Your task to perform on an android device: Check the weather Image 0: 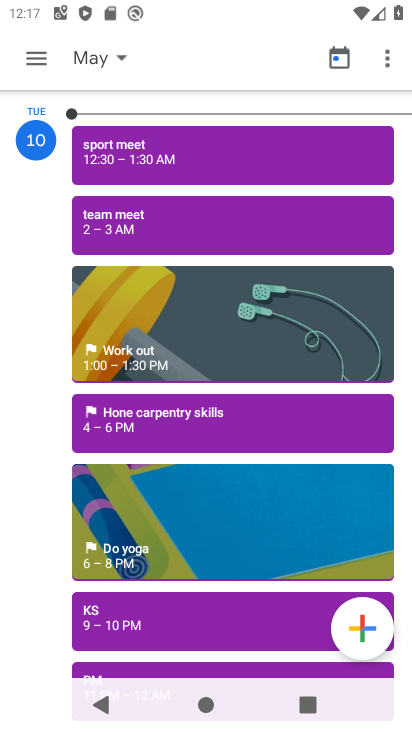
Step 0: drag from (358, 675) to (111, 87)
Your task to perform on an android device: Check the weather Image 1: 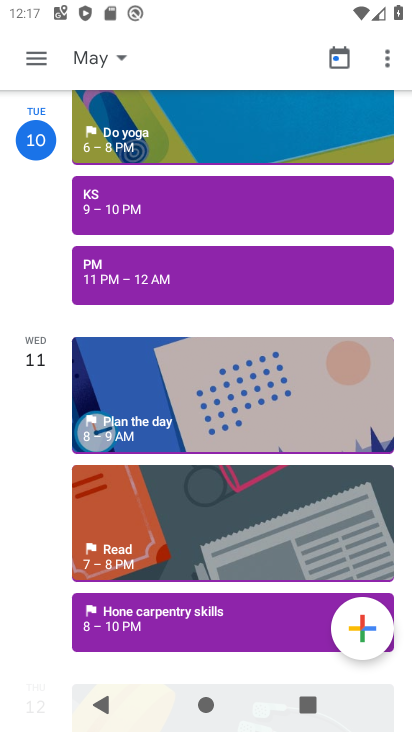
Step 1: press back button
Your task to perform on an android device: Check the weather Image 2: 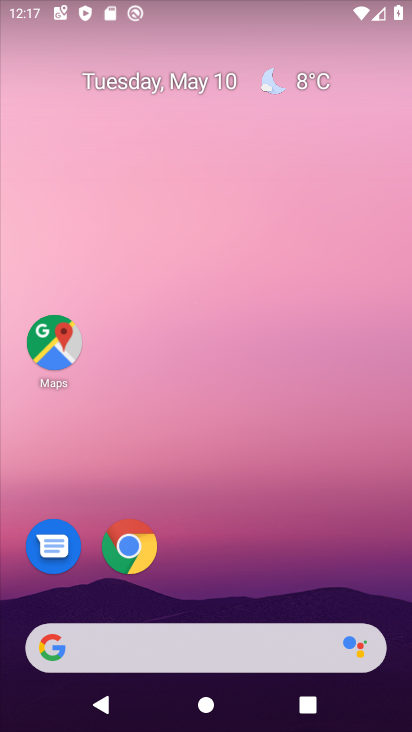
Step 2: drag from (246, 579) to (95, 39)
Your task to perform on an android device: Check the weather Image 3: 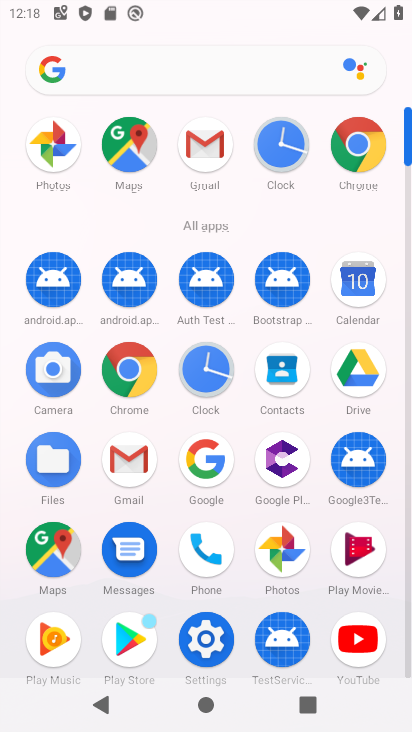
Step 3: press back button
Your task to perform on an android device: Check the weather Image 4: 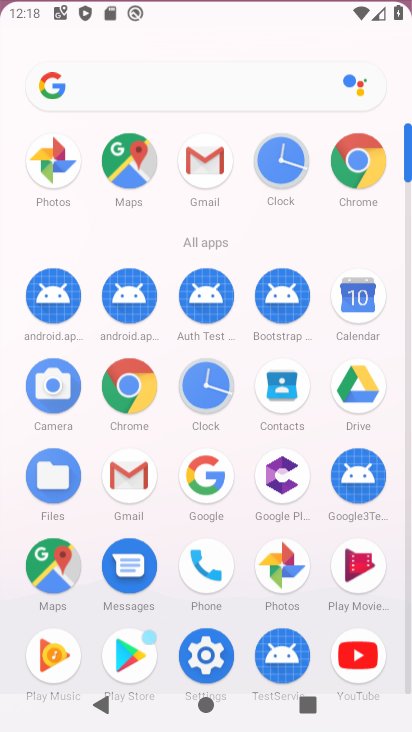
Step 4: press back button
Your task to perform on an android device: Check the weather Image 5: 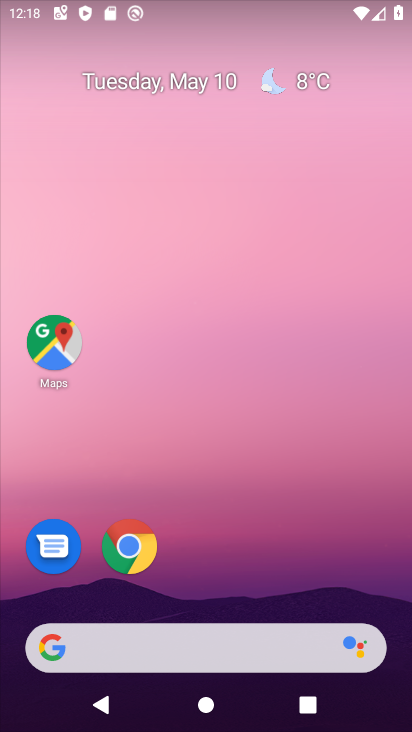
Step 5: press back button
Your task to perform on an android device: Check the weather Image 6: 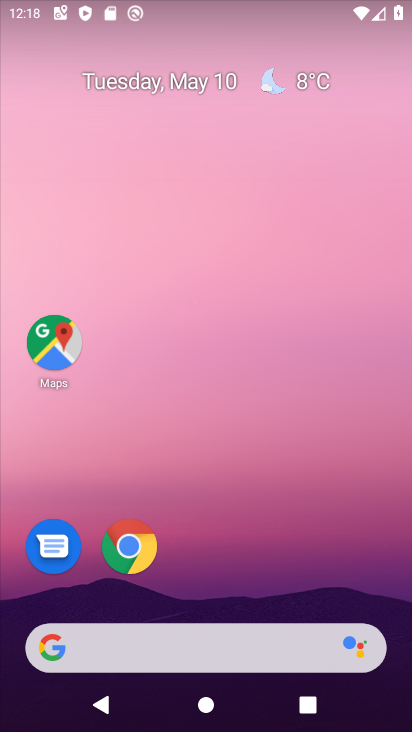
Step 6: press back button
Your task to perform on an android device: Check the weather Image 7: 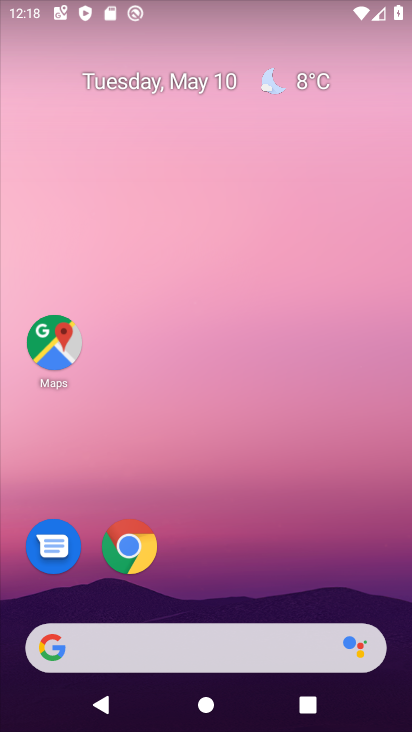
Step 7: click (303, 68)
Your task to perform on an android device: Check the weather Image 8: 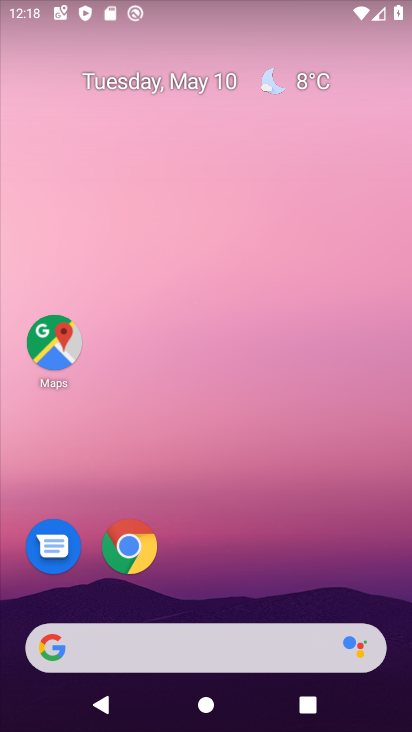
Step 8: click (282, 83)
Your task to perform on an android device: Check the weather Image 9: 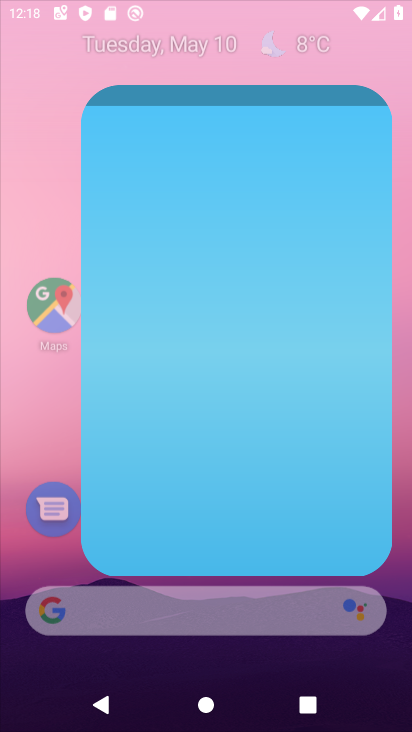
Step 9: click (281, 84)
Your task to perform on an android device: Check the weather Image 10: 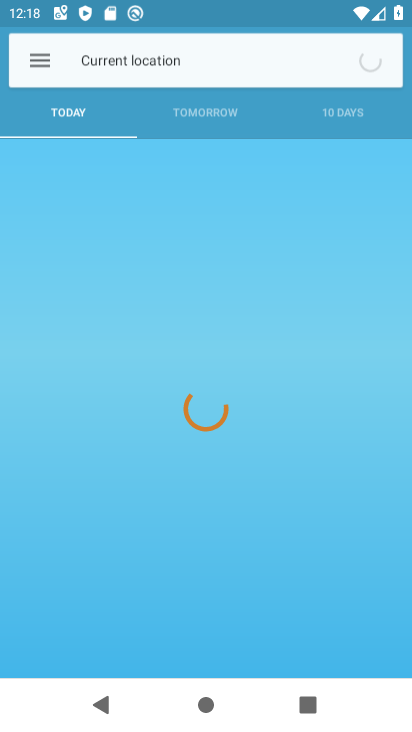
Step 10: click (281, 84)
Your task to perform on an android device: Check the weather Image 11: 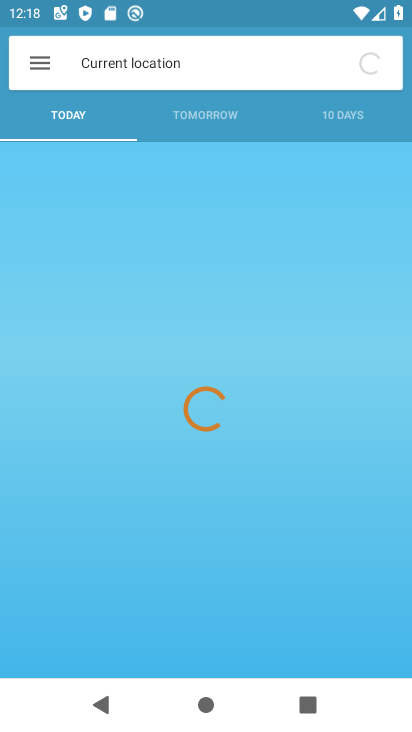
Step 11: click (281, 84)
Your task to perform on an android device: Check the weather Image 12: 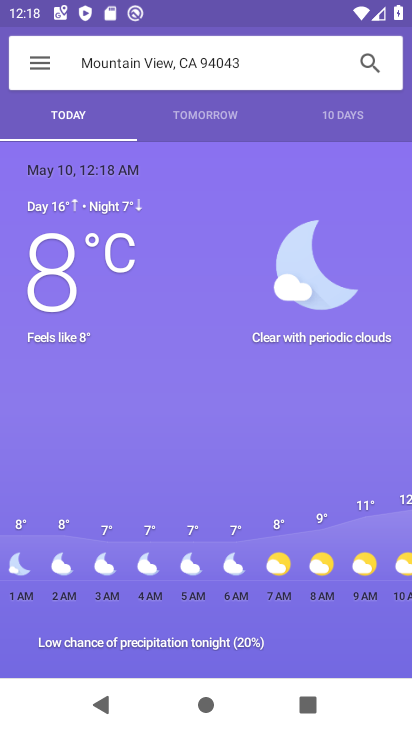
Step 12: drag from (137, 481) to (129, 129)
Your task to perform on an android device: Check the weather Image 13: 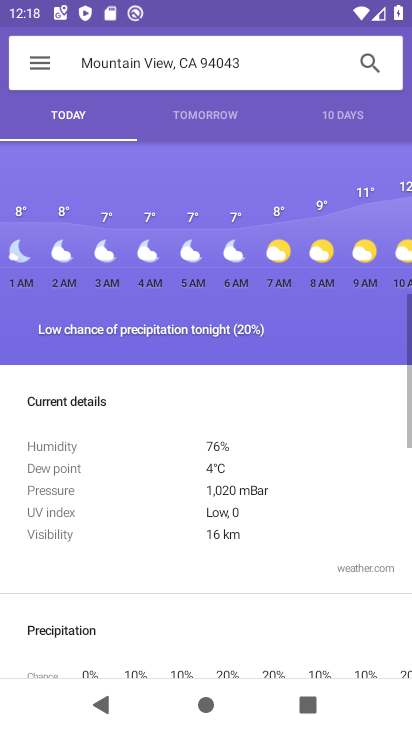
Step 13: drag from (171, 452) to (117, 9)
Your task to perform on an android device: Check the weather Image 14: 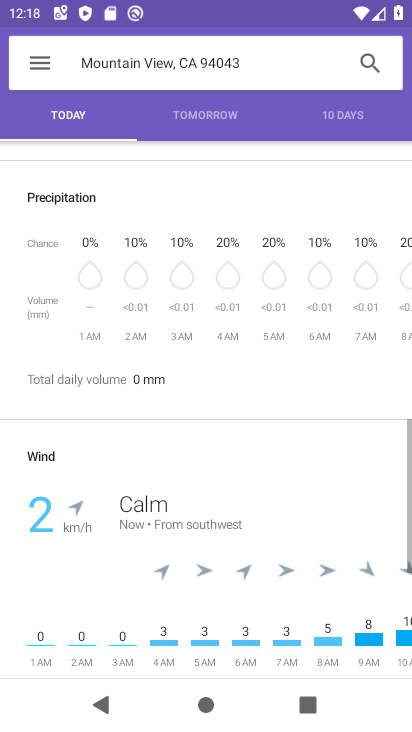
Step 14: drag from (161, 380) to (128, 11)
Your task to perform on an android device: Check the weather Image 15: 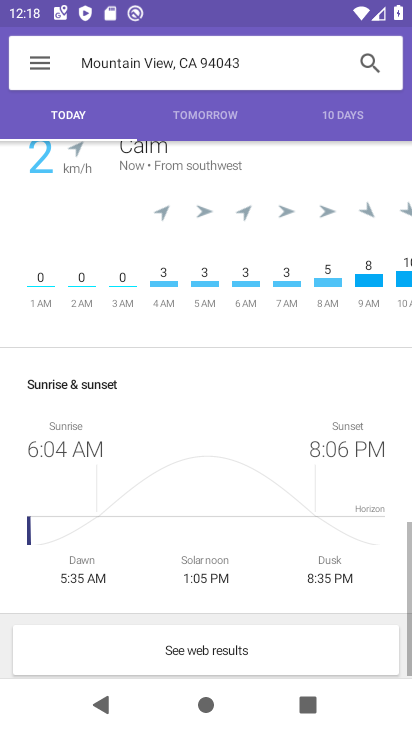
Step 15: drag from (209, 408) to (124, 43)
Your task to perform on an android device: Check the weather Image 16: 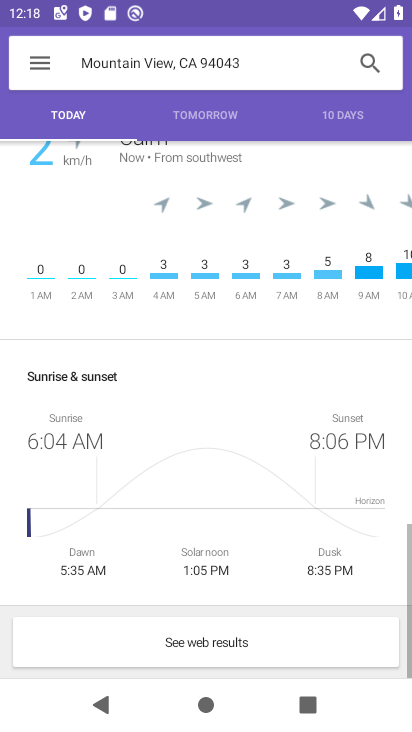
Step 16: drag from (163, 450) to (128, 25)
Your task to perform on an android device: Check the weather Image 17: 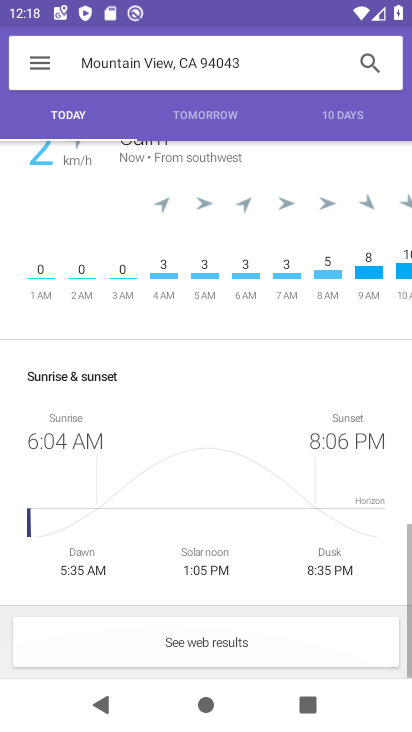
Step 17: drag from (185, 463) to (180, 188)
Your task to perform on an android device: Check the weather Image 18: 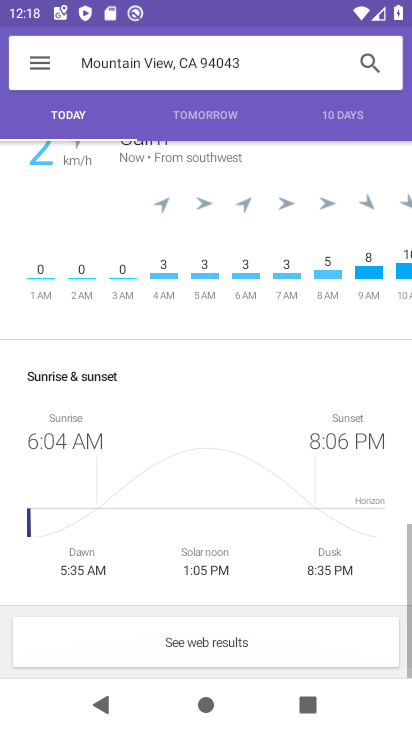
Step 18: drag from (271, 441) to (233, 25)
Your task to perform on an android device: Check the weather Image 19: 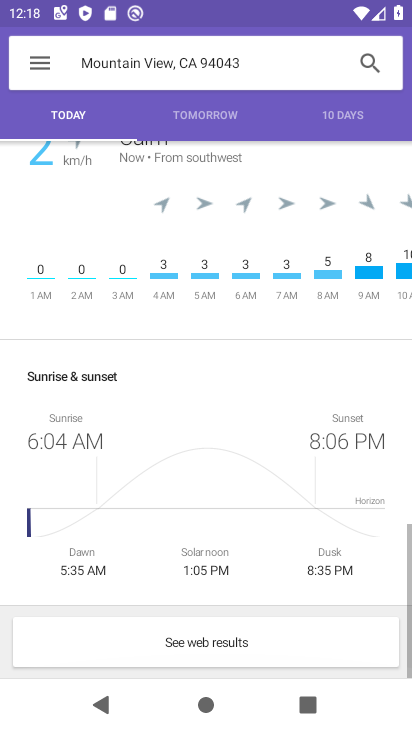
Step 19: drag from (190, 459) to (184, 201)
Your task to perform on an android device: Check the weather Image 20: 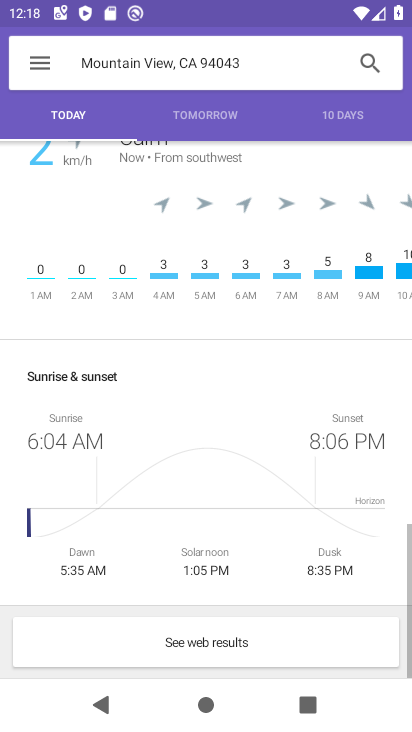
Step 20: drag from (141, 230) to (187, 489)
Your task to perform on an android device: Check the weather Image 21: 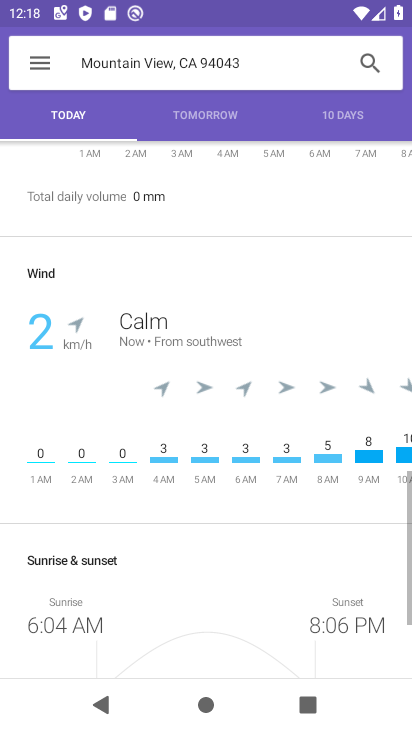
Step 21: drag from (201, 276) to (248, 566)
Your task to perform on an android device: Check the weather Image 22: 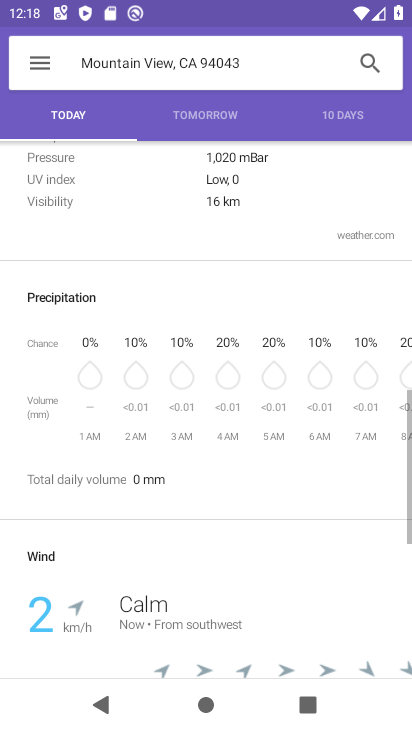
Step 22: drag from (235, 298) to (260, 516)
Your task to perform on an android device: Check the weather Image 23: 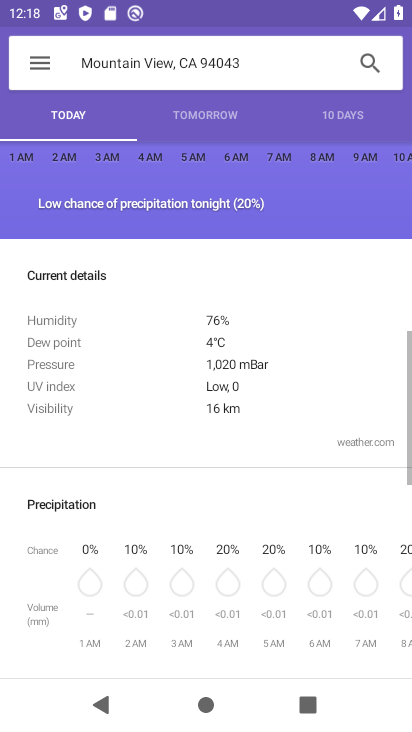
Step 23: drag from (224, 352) to (238, 547)
Your task to perform on an android device: Check the weather Image 24: 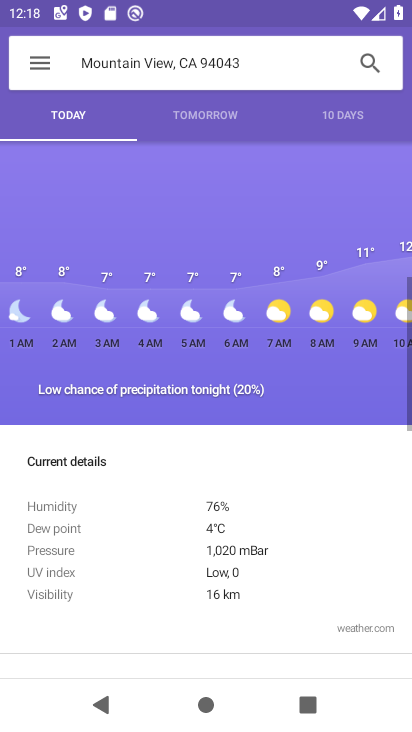
Step 24: drag from (193, 270) to (216, 565)
Your task to perform on an android device: Check the weather Image 25: 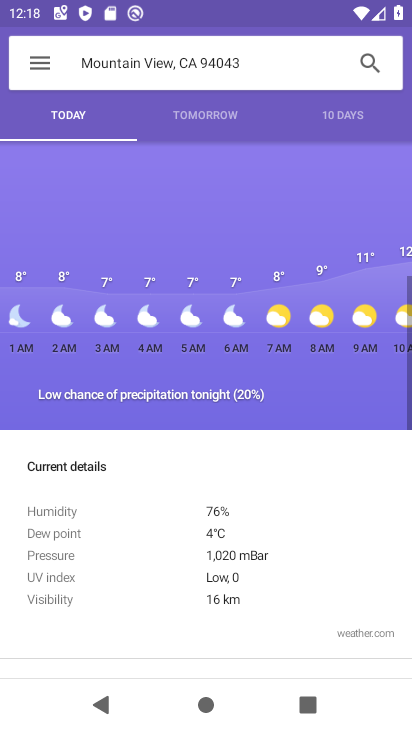
Step 25: drag from (173, 537) to (185, 595)
Your task to perform on an android device: Check the weather Image 26: 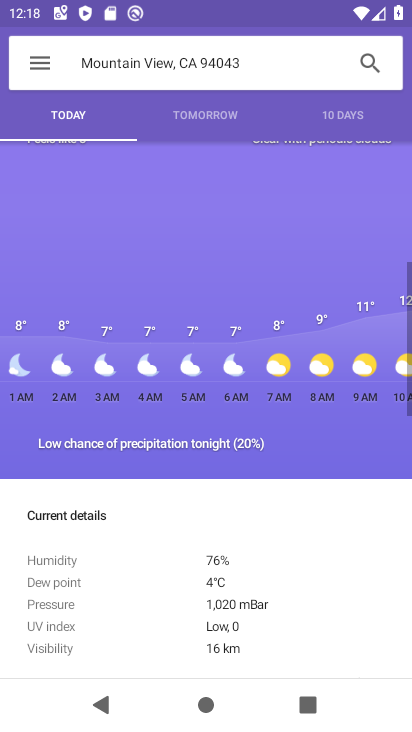
Step 26: drag from (215, 586) to (240, 657)
Your task to perform on an android device: Check the weather Image 27: 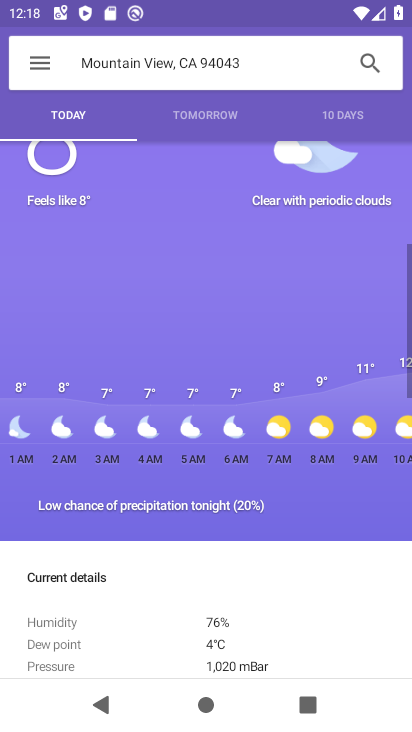
Step 27: drag from (213, 495) to (219, 721)
Your task to perform on an android device: Check the weather Image 28: 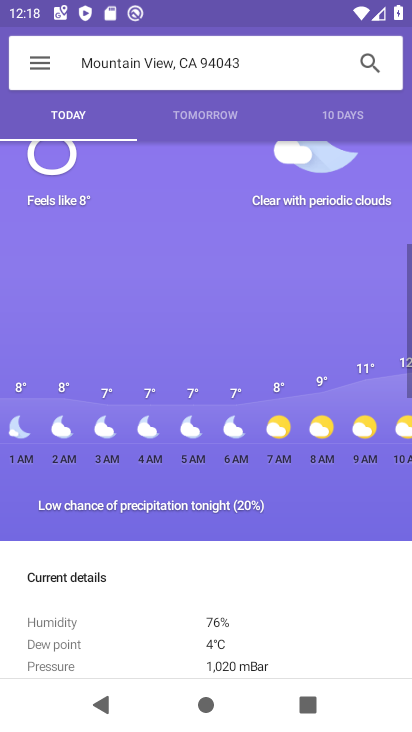
Step 28: drag from (141, 502) to (170, 728)
Your task to perform on an android device: Check the weather Image 29: 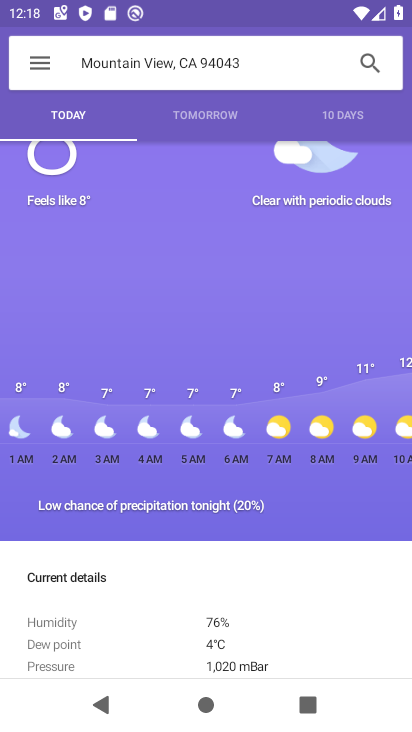
Step 29: drag from (124, 479) to (153, 646)
Your task to perform on an android device: Check the weather Image 30: 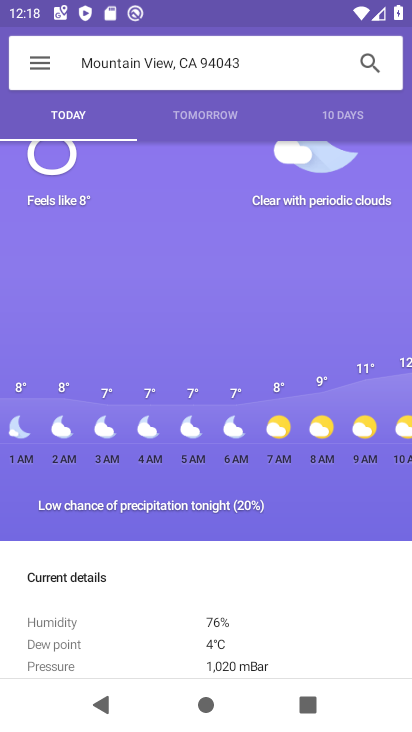
Step 30: drag from (143, 393) to (178, 546)
Your task to perform on an android device: Check the weather Image 31: 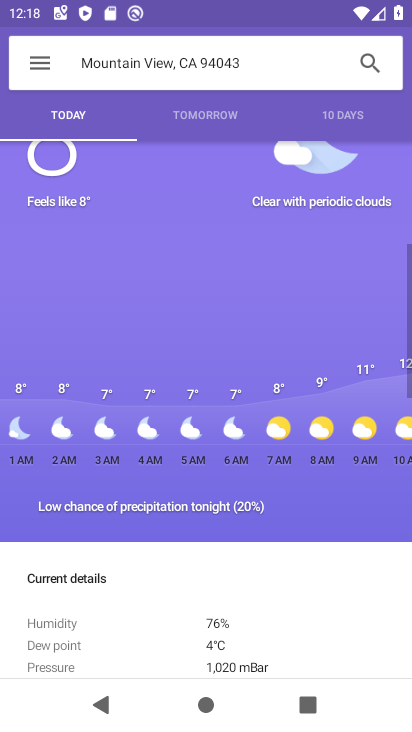
Step 31: drag from (284, 541) to (226, 144)
Your task to perform on an android device: Check the weather Image 32: 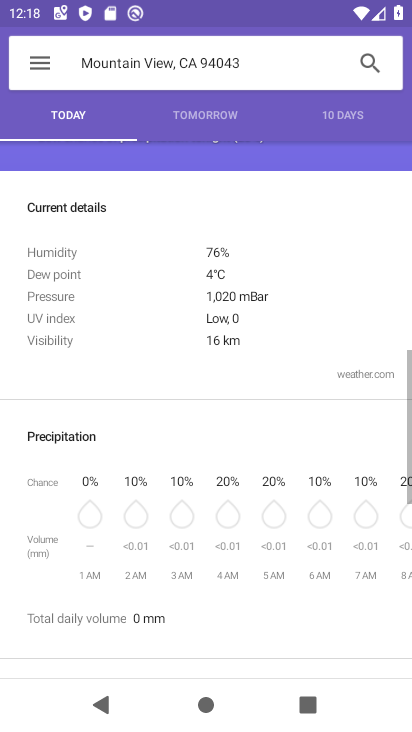
Step 32: drag from (234, 361) to (203, 185)
Your task to perform on an android device: Check the weather Image 33: 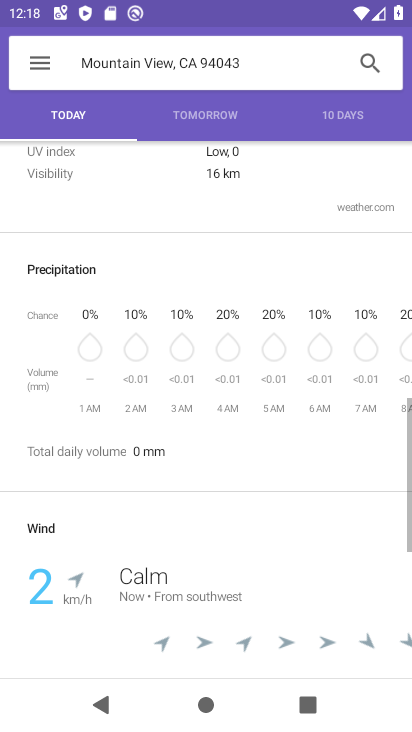
Step 33: drag from (186, 451) to (138, 147)
Your task to perform on an android device: Check the weather Image 34: 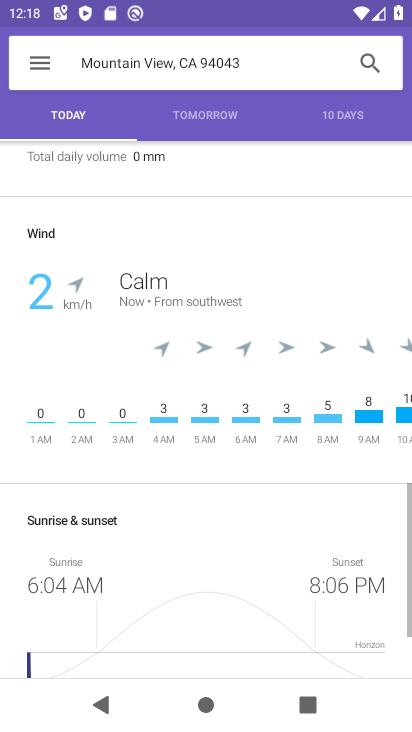
Step 34: drag from (149, 421) to (93, 143)
Your task to perform on an android device: Check the weather Image 35: 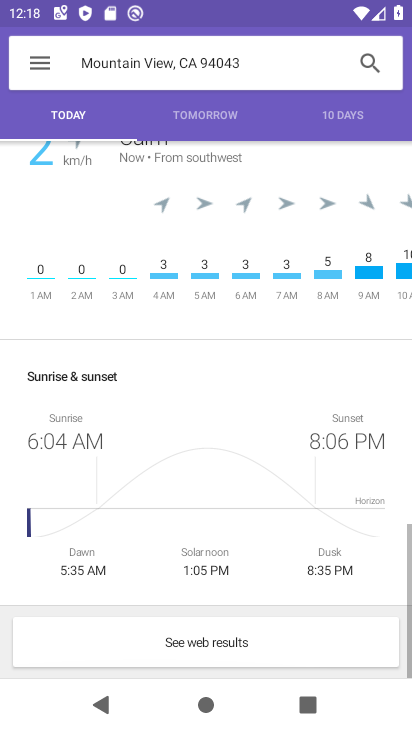
Step 35: drag from (185, 486) to (91, 101)
Your task to perform on an android device: Check the weather Image 36: 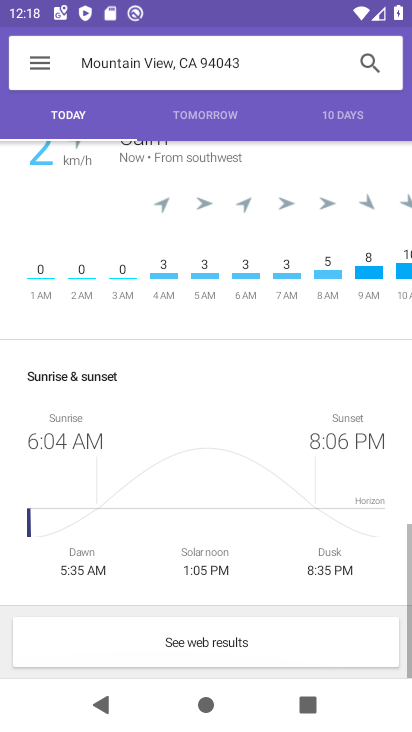
Step 36: drag from (128, 410) to (84, 166)
Your task to perform on an android device: Check the weather Image 37: 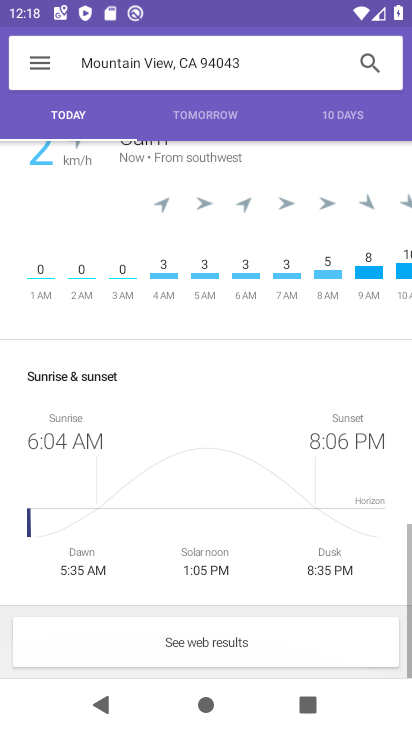
Step 37: drag from (146, 480) to (166, 51)
Your task to perform on an android device: Check the weather Image 38: 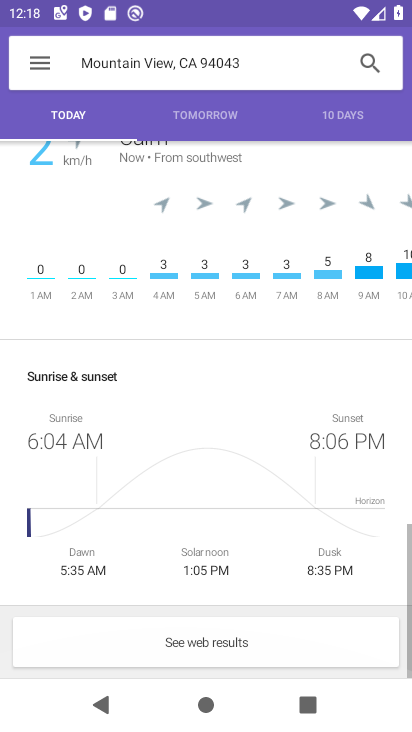
Step 38: drag from (162, 462) to (140, 212)
Your task to perform on an android device: Check the weather Image 39: 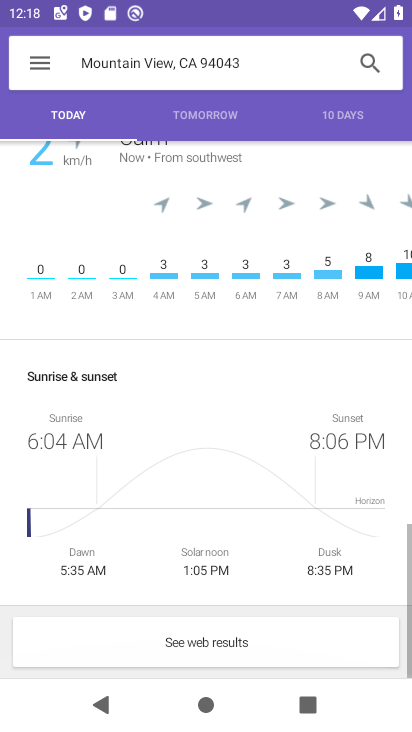
Step 39: drag from (130, 468) to (123, 176)
Your task to perform on an android device: Check the weather Image 40: 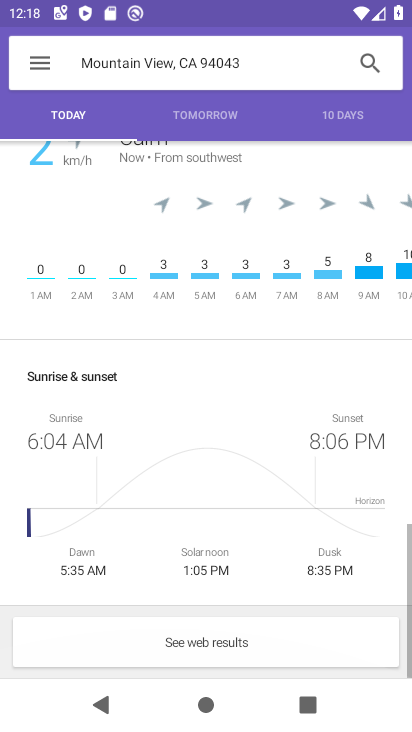
Step 40: drag from (177, 413) to (142, 47)
Your task to perform on an android device: Check the weather Image 41: 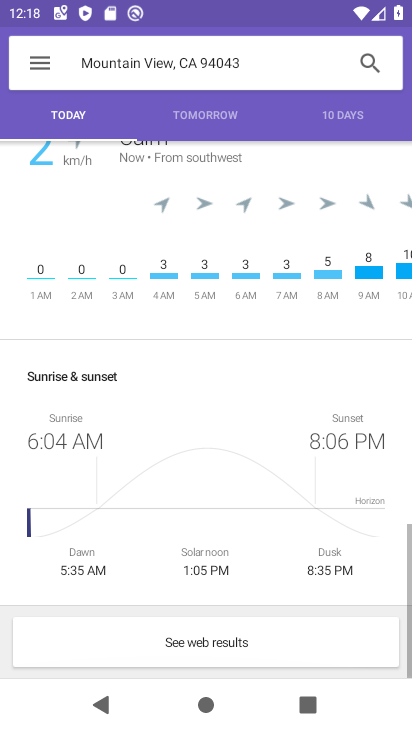
Step 41: drag from (153, 409) to (126, 37)
Your task to perform on an android device: Check the weather Image 42: 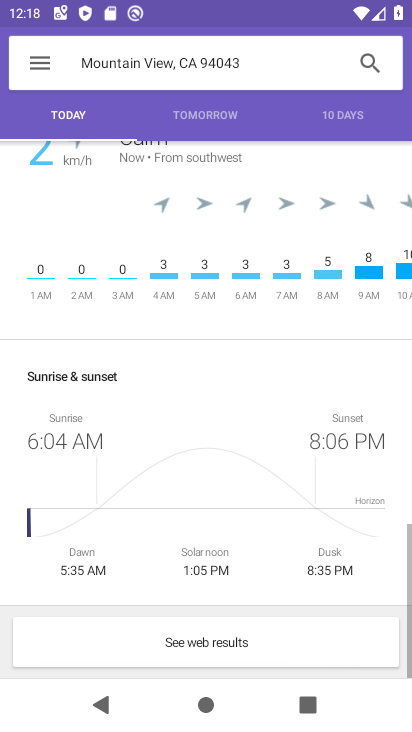
Step 42: drag from (168, 470) to (166, 171)
Your task to perform on an android device: Check the weather Image 43: 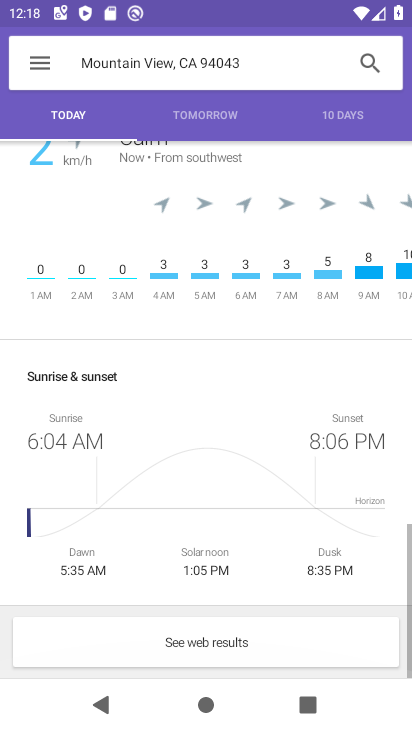
Step 43: drag from (221, 489) to (151, 80)
Your task to perform on an android device: Check the weather Image 44: 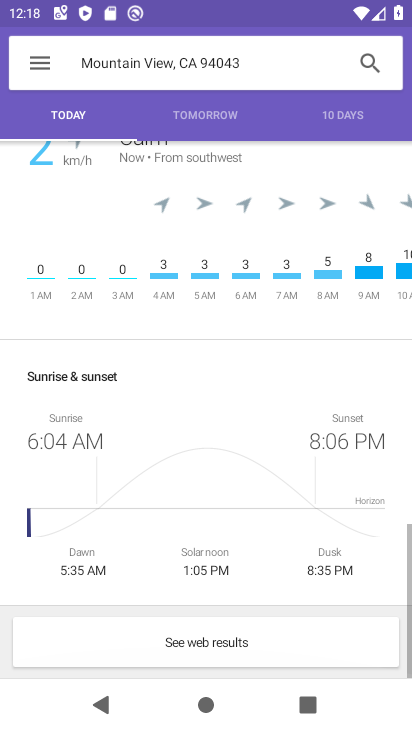
Step 44: drag from (165, 461) to (121, 23)
Your task to perform on an android device: Check the weather Image 45: 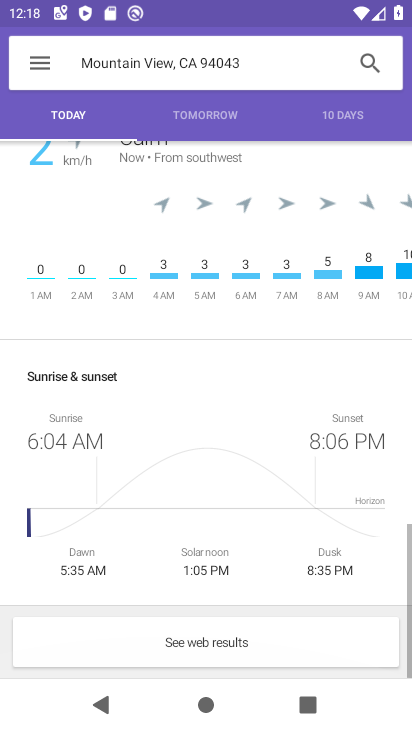
Step 45: drag from (172, 443) to (81, 66)
Your task to perform on an android device: Check the weather Image 46: 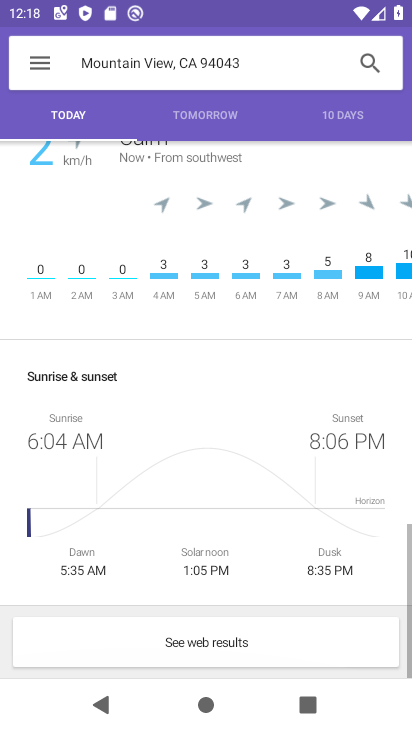
Step 46: drag from (184, 273) to (170, 78)
Your task to perform on an android device: Check the weather Image 47: 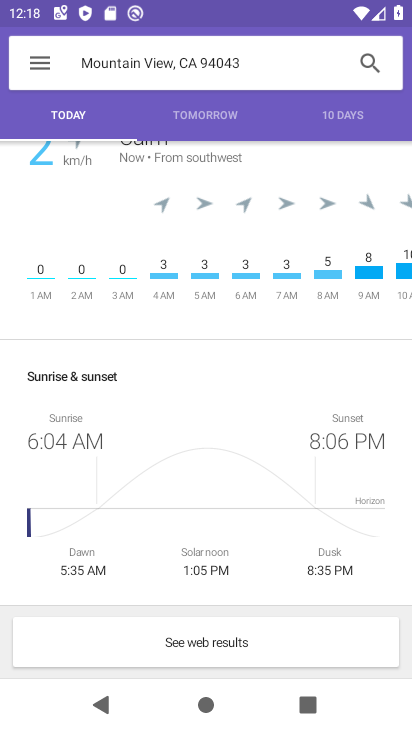
Step 47: drag from (162, 442) to (202, 132)
Your task to perform on an android device: Check the weather Image 48: 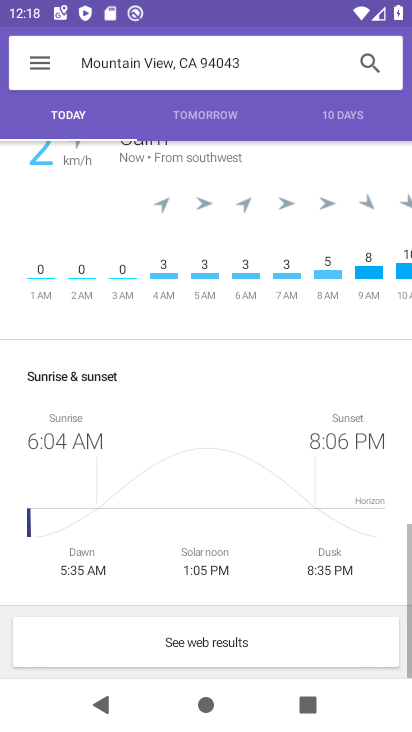
Step 48: drag from (107, 421) to (125, 173)
Your task to perform on an android device: Check the weather Image 49: 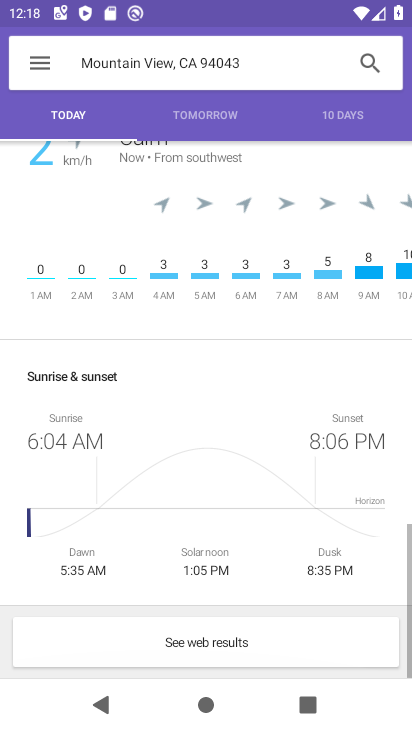
Step 49: drag from (142, 405) to (130, 130)
Your task to perform on an android device: Check the weather Image 50: 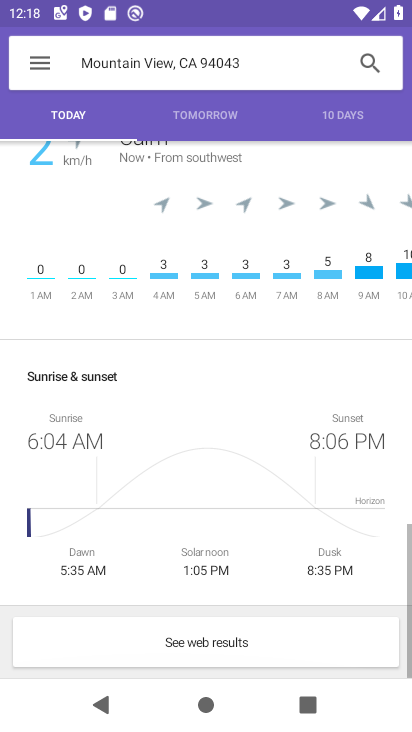
Step 50: drag from (154, 440) to (121, 180)
Your task to perform on an android device: Check the weather Image 51: 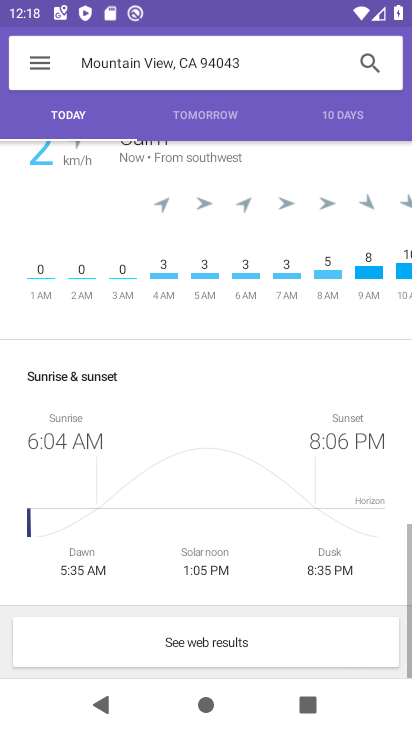
Step 51: drag from (137, 452) to (125, 97)
Your task to perform on an android device: Check the weather Image 52: 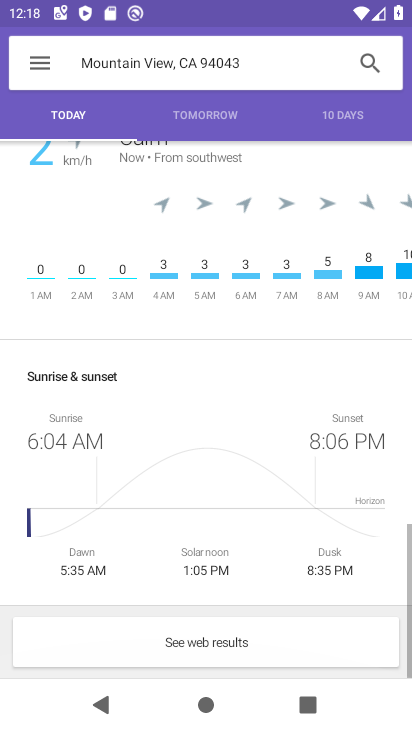
Step 52: drag from (159, 425) to (81, 101)
Your task to perform on an android device: Check the weather Image 53: 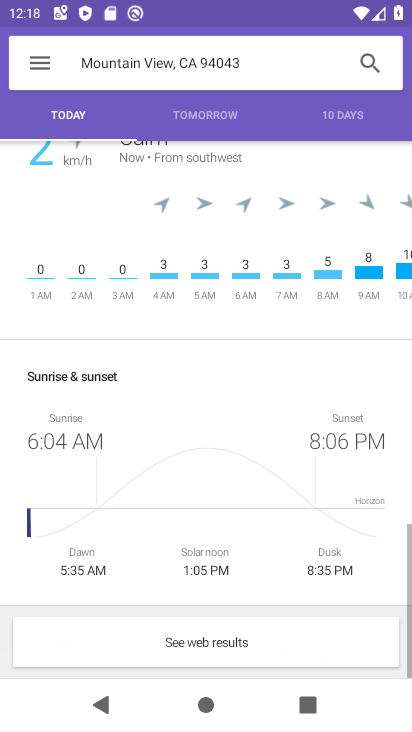
Step 53: drag from (125, 402) to (105, 268)
Your task to perform on an android device: Check the weather Image 54: 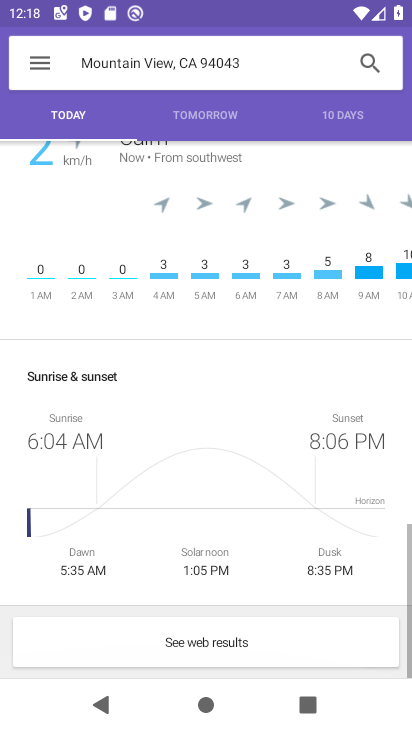
Step 54: drag from (165, 508) to (104, 188)
Your task to perform on an android device: Check the weather Image 55: 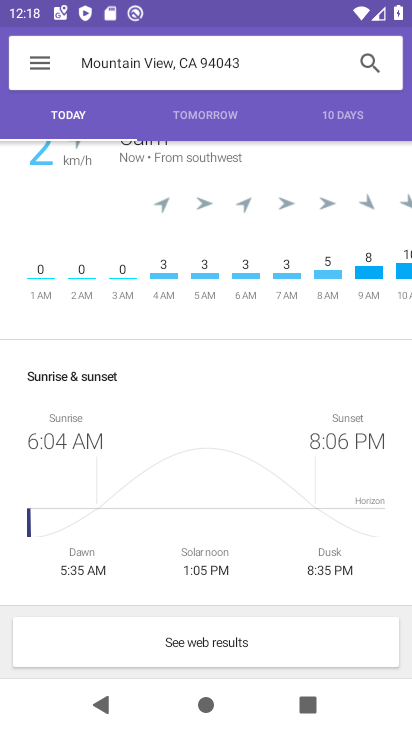
Step 55: click (249, 65)
Your task to perform on an android device: Check the weather Image 56: 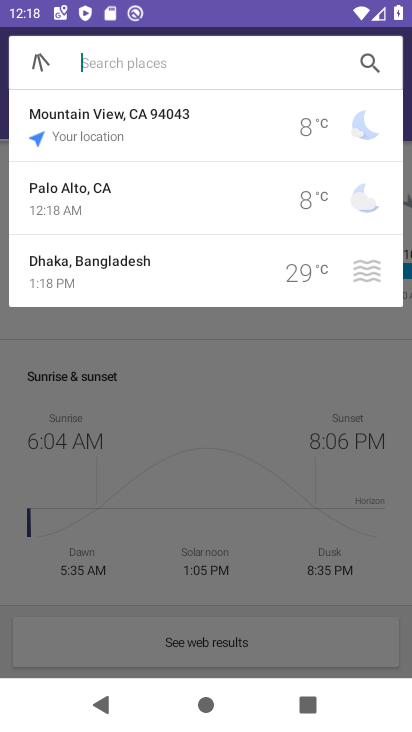
Step 56: click (209, 127)
Your task to perform on an android device: Check the weather Image 57: 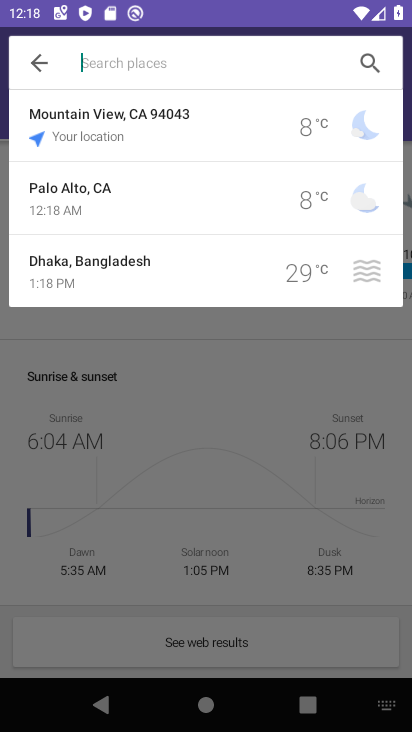
Step 57: click (209, 127)
Your task to perform on an android device: Check the weather Image 58: 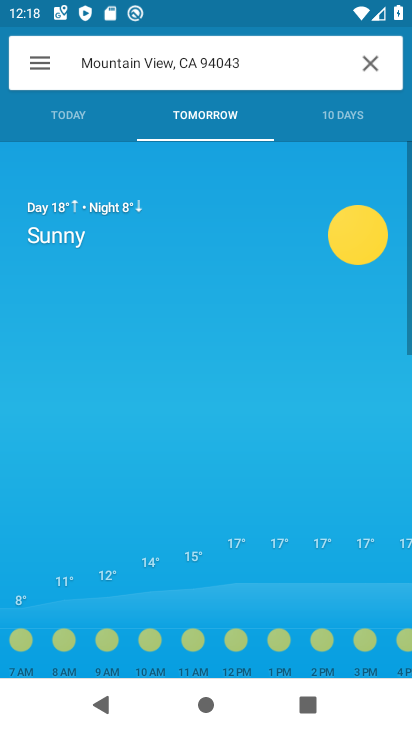
Step 58: task complete